Your task to perform on an android device: open the mobile data screen to see how much data has been used Image 0: 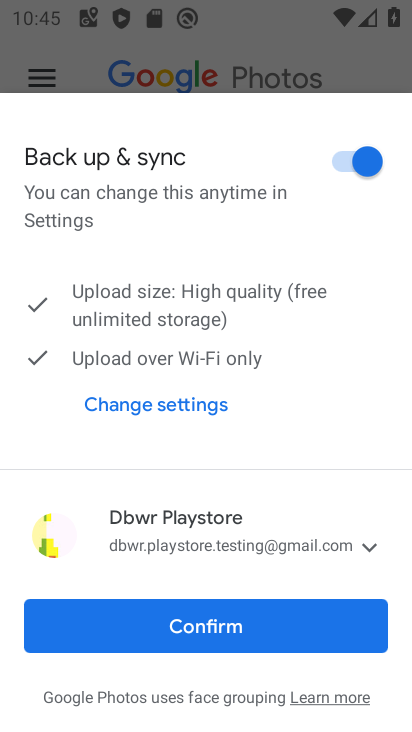
Step 0: press back button
Your task to perform on an android device: open the mobile data screen to see how much data has been used Image 1: 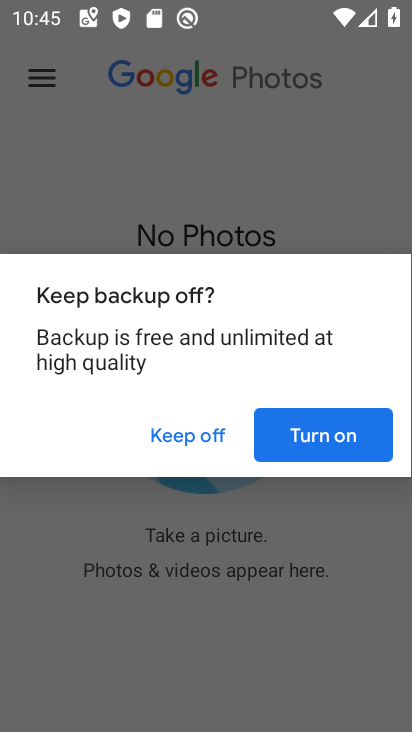
Step 1: press home button
Your task to perform on an android device: open the mobile data screen to see how much data has been used Image 2: 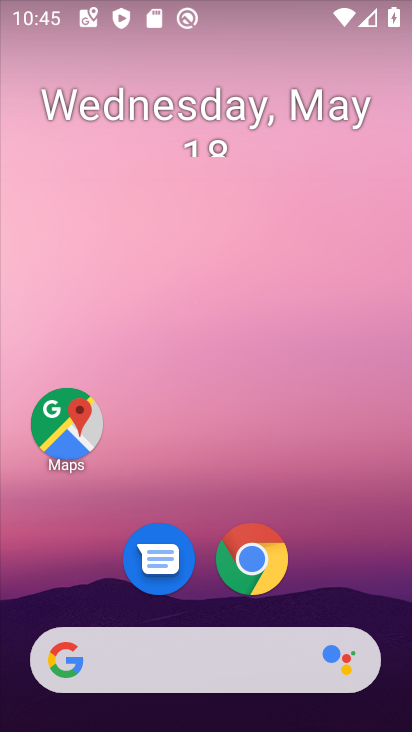
Step 2: drag from (190, 563) to (300, 63)
Your task to perform on an android device: open the mobile data screen to see how much data has been used Image 3: 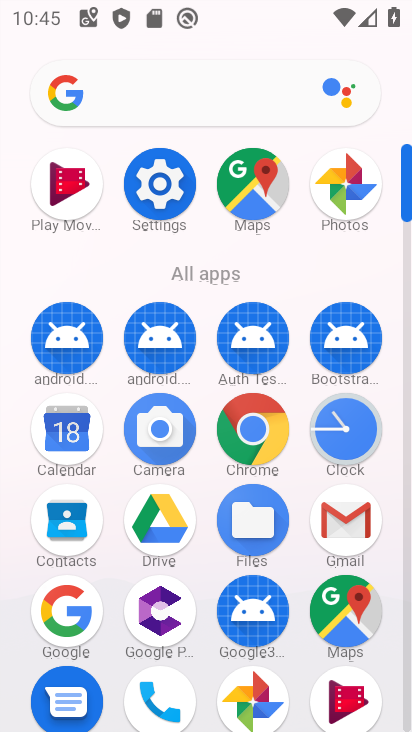
Step 3: click (155, 194)
Your task to perform on an android device: open the mobile data screen to see how much data has been used Image 4: 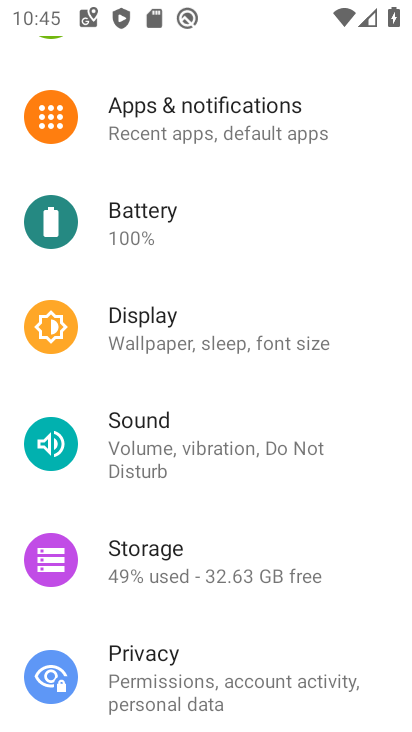
Step 4: drag from (215, 186) to (161, 652)
Your task to perform on an android device: open the mobile data screen to see how much data has been used Image 5: 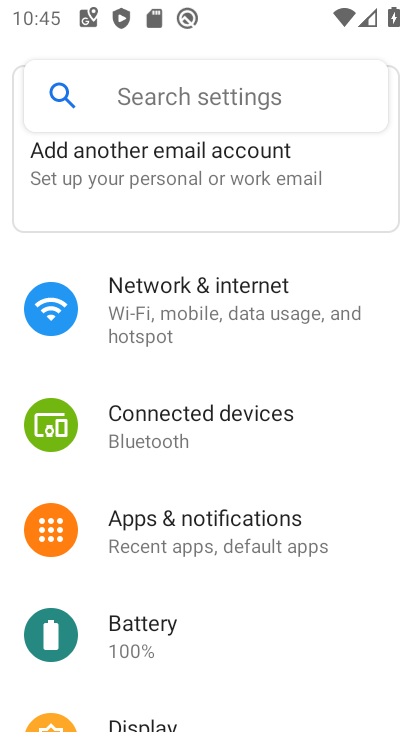
Step 5: click (185, 326)
Your task to perform on an android device: open the mobile data screen to see how much data has been used Image 6: 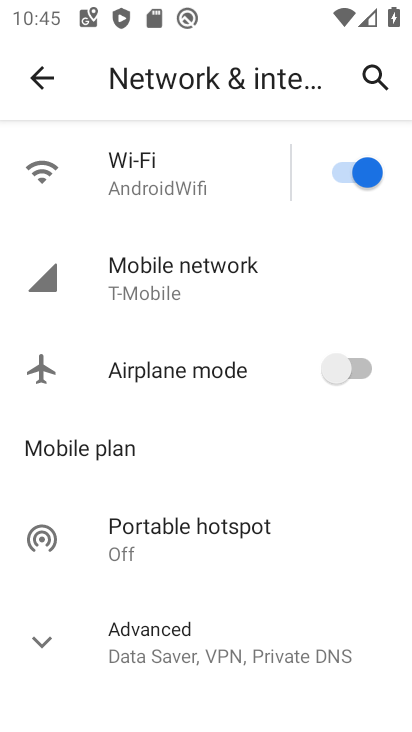
Step 6: click (163, 275)
Your task to perform on an android device: open the mobile data screen to see how much data has been used Image 7: 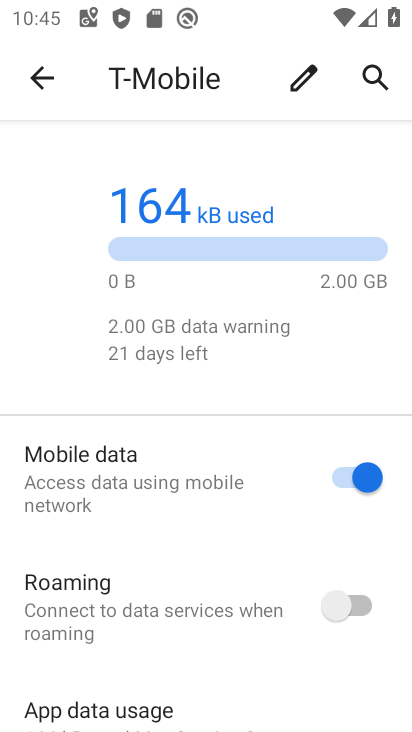
Step 7: click (147, 707)
Your task to perform on an android device: open the mobile data screen to see how much data has been used Image 8: 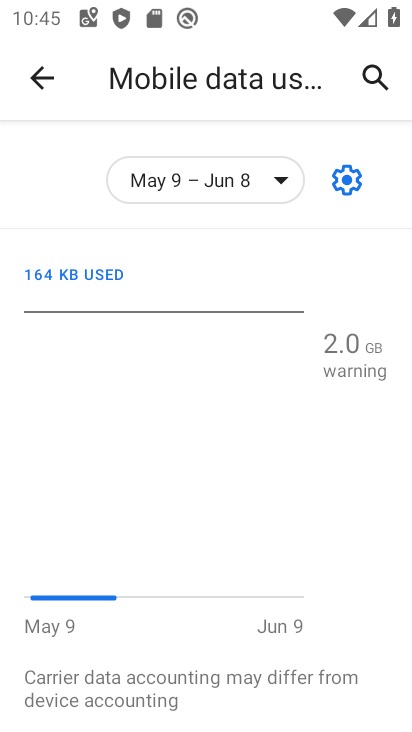
Step 8: task complete